Your task to perform on an android device: choose inbox layout in the gmail app Image 0: 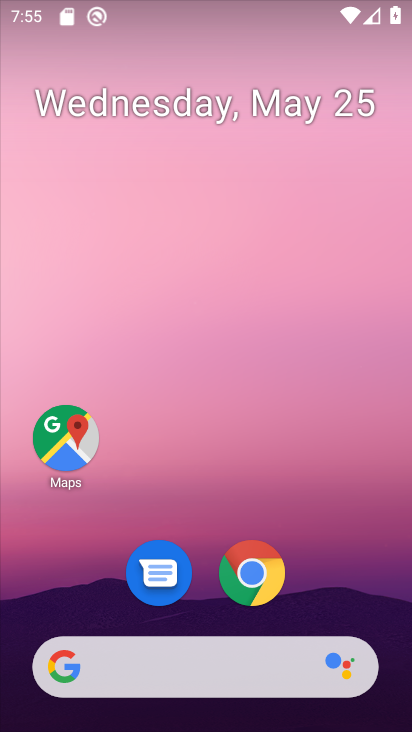
Step 0: drag from (399, 704) to (342, 136)
Your task to perform on an android device: choose inbox layout in the gmail app Image 1: 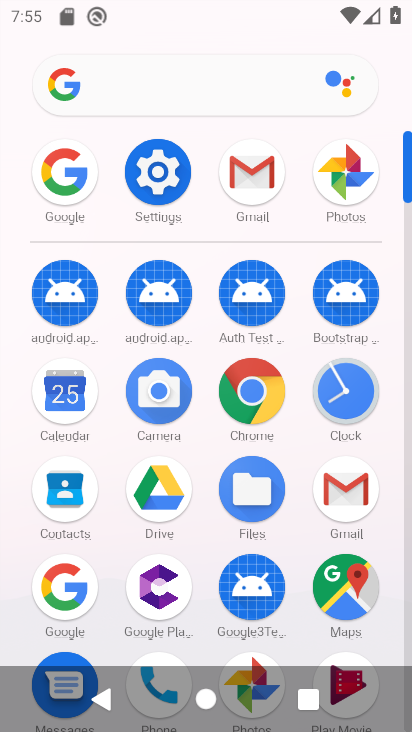
Step 1: click (251, 162)
Your task to perform on an android device: choose inbox layout in the gmail app Image 2: 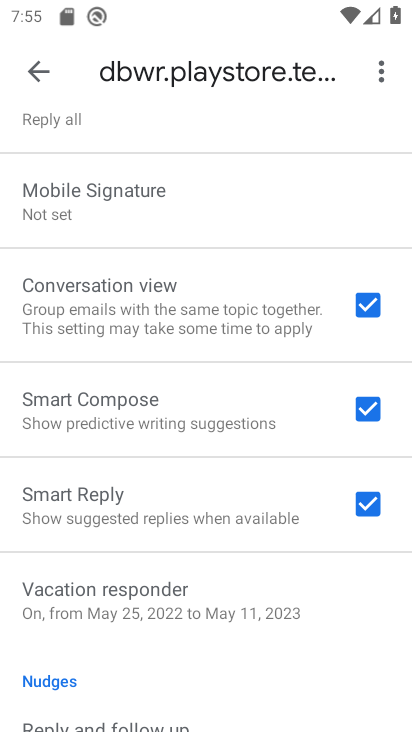
Step 2: drag from (206, 137) to (181, 647)
Your task to perform on an android device: choose inbox layout in the gmail app Image 3: 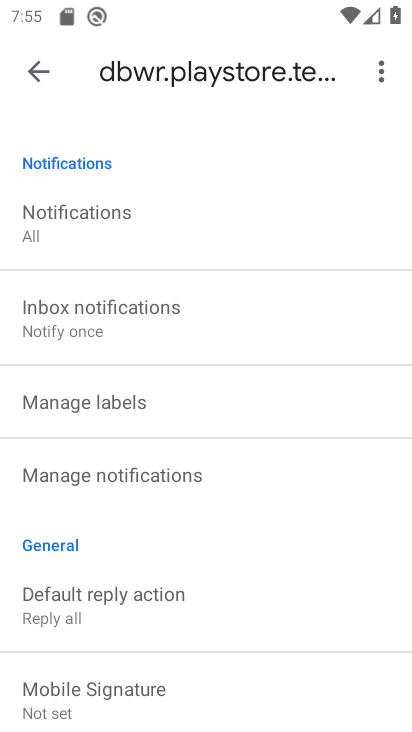
Step 3: drag from (214, 182) to (238, 540)
Your task to perform on an android device: choose inbox layout in the gmail app Image 4: 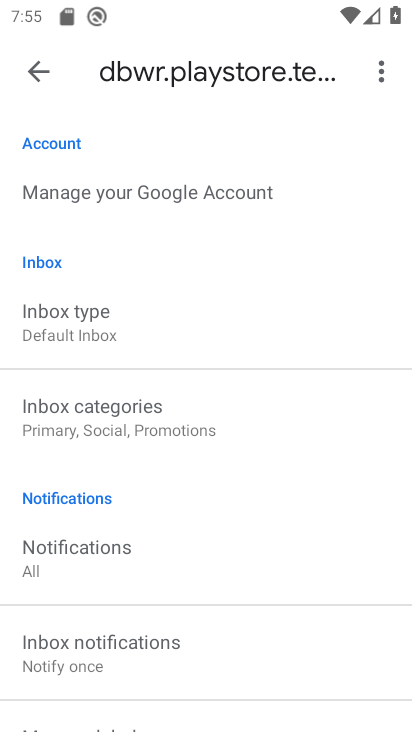
Step 4: drag from (203, 162) to (202, 576)
Your task to perform on an android device: choose inbox layout in the gmail app Image 5: 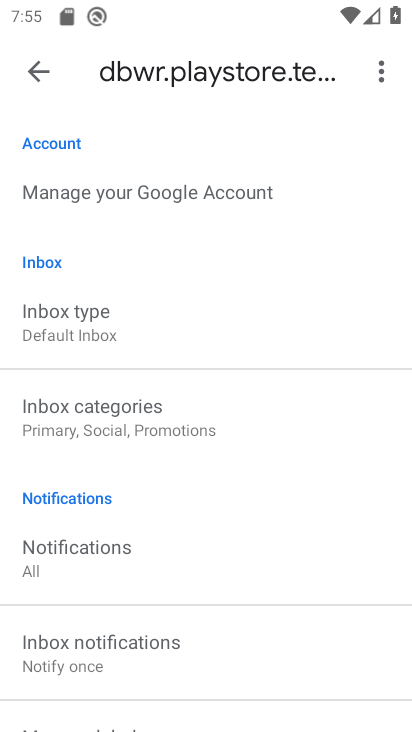
Step 5: click (37, 302)
Your task to perform on an android device: choose inbox layout in the gmail app Image 6: 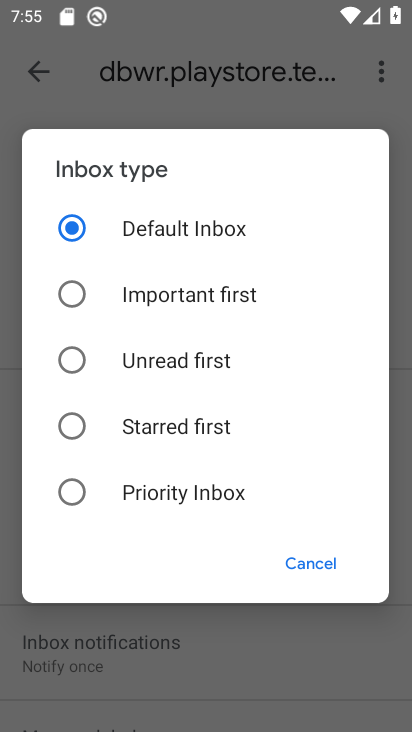
Step 6: click (80, 418)
Your task to perform on an android device: choose inbox layout in the gmail app Image 7: 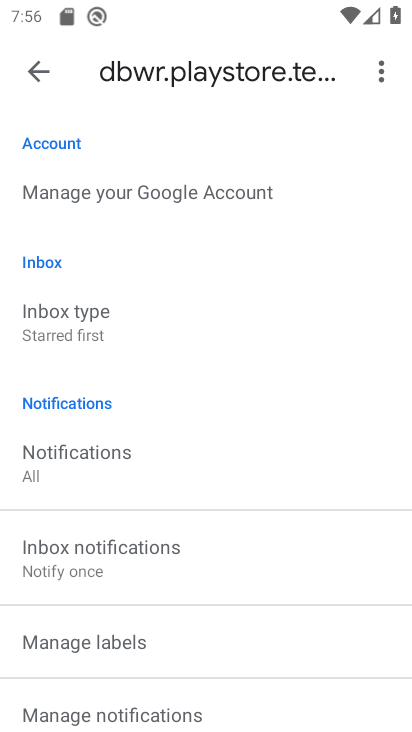
Step 7: task complete